Your task to perform on an android device: Play the new Katy Perry video on YouTube Image 0: 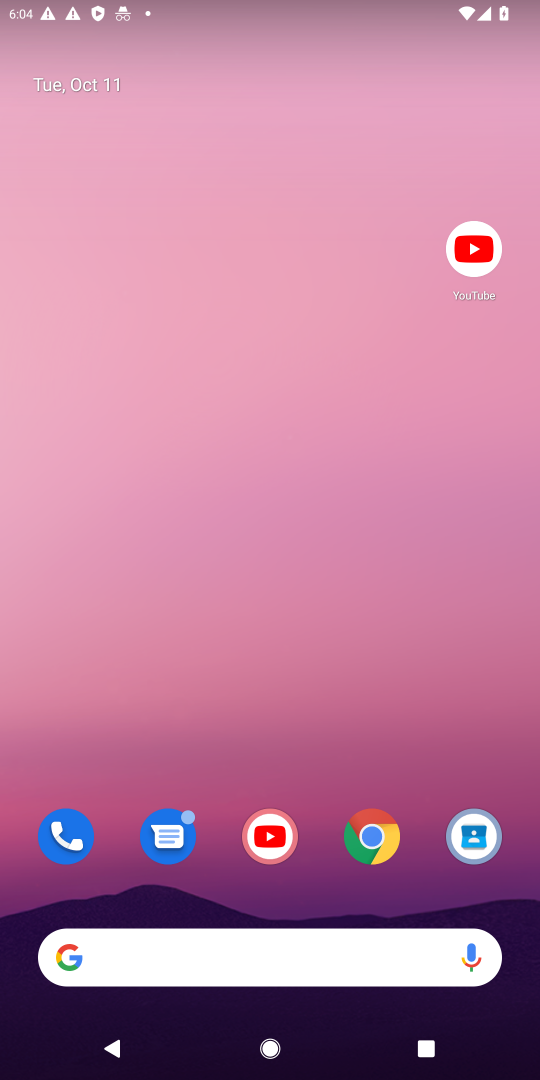
Step 0: click (263, 835)
Your task to perform on an android device: Play the new Katy Perry video on YouTube Image 1: 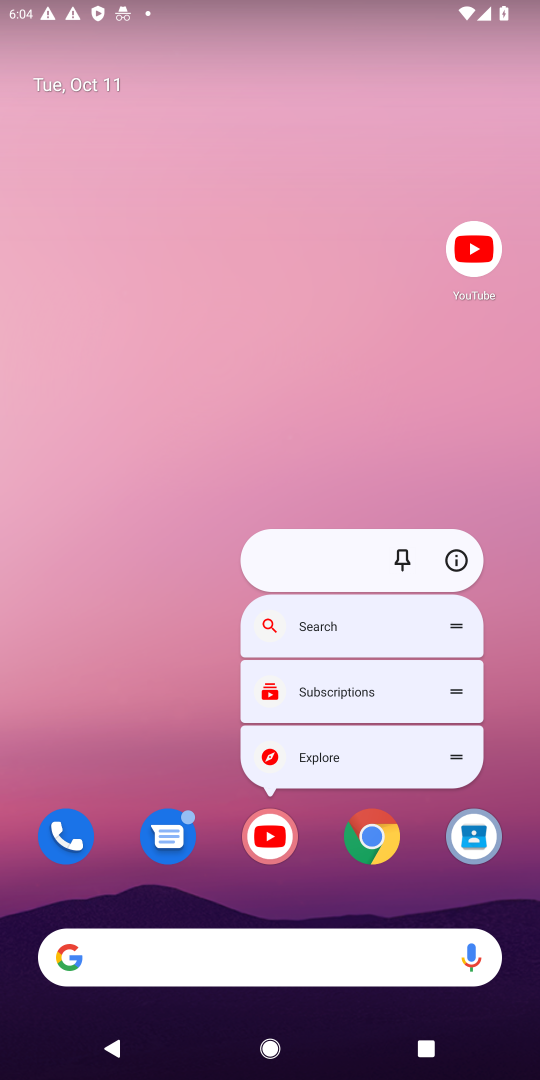
Step 1: click (263, 845)
Your task to perform on an android device: Play the new Katy Perry video on YouTube Image 2: 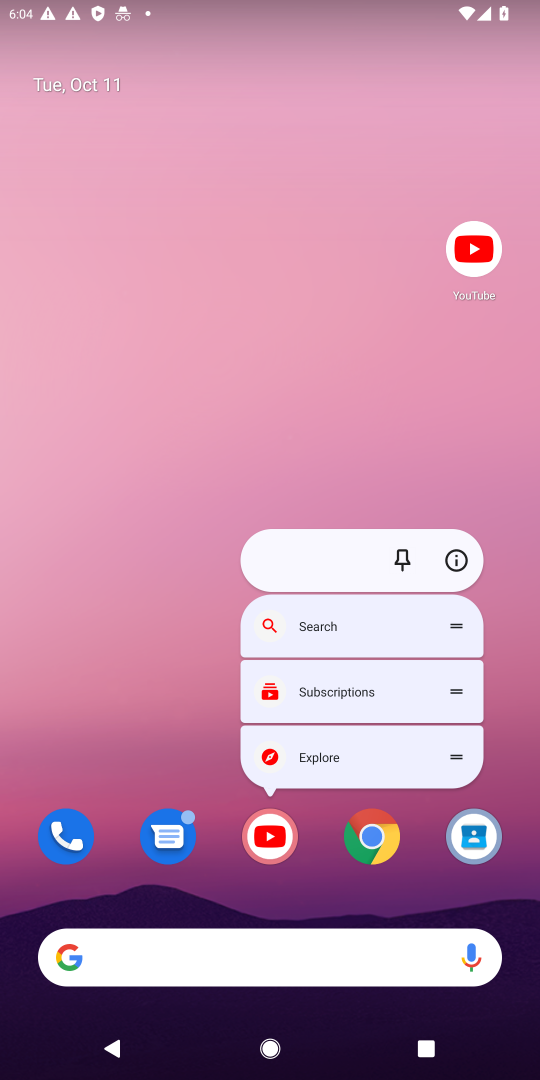
Step 2: click (265, 835)
Your task to perform on an android device: Play the new Katy Perry video on YouTube Image 3: 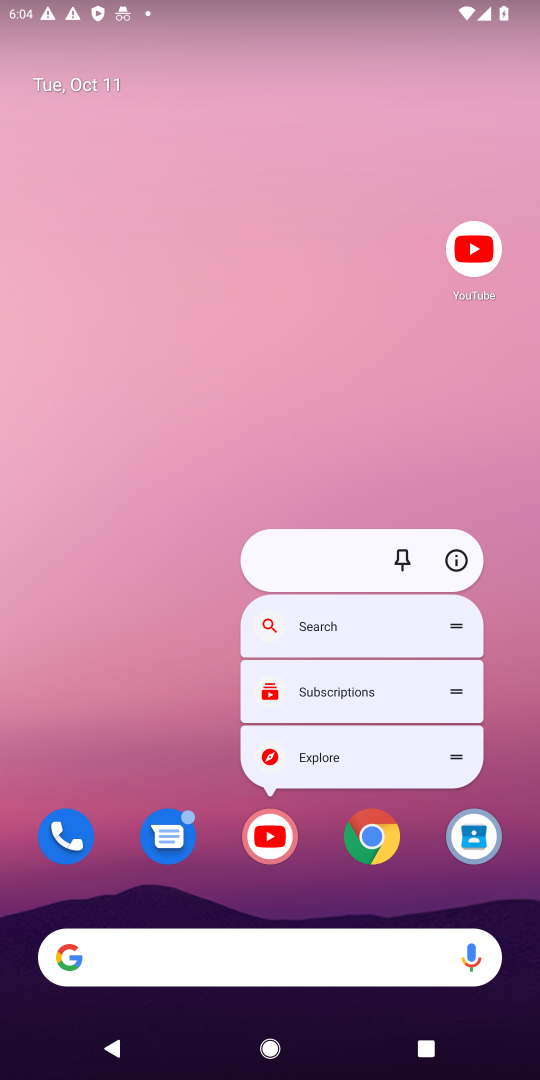
Step 3: click (265, 835)
Your task to perform on an android device: Play the new Katy Perry video on YouTube Image 4: 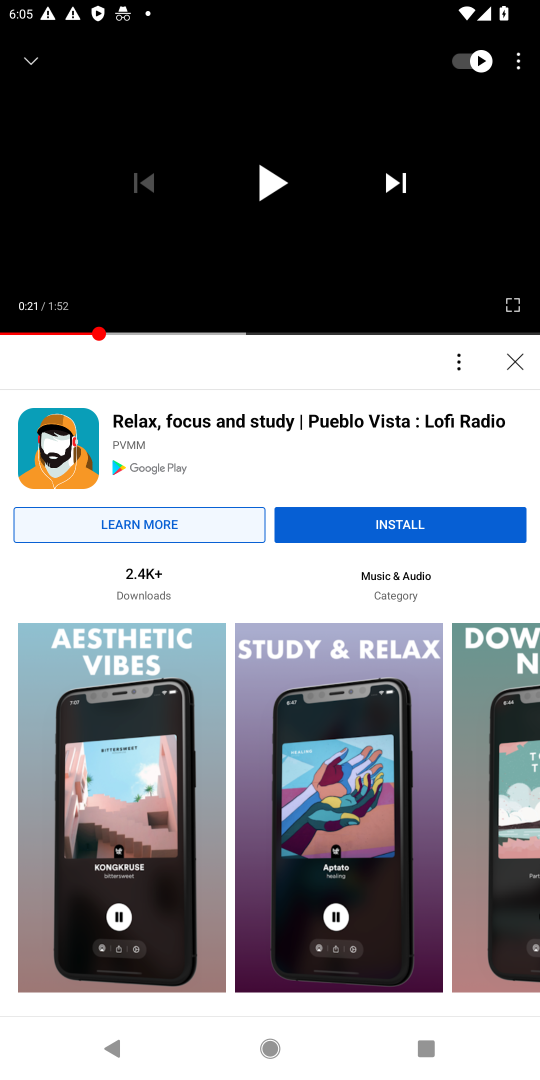
Step 4: press back button
Your task to perform on an android device: Play the new Katy Perry video on YouTube Image 5: 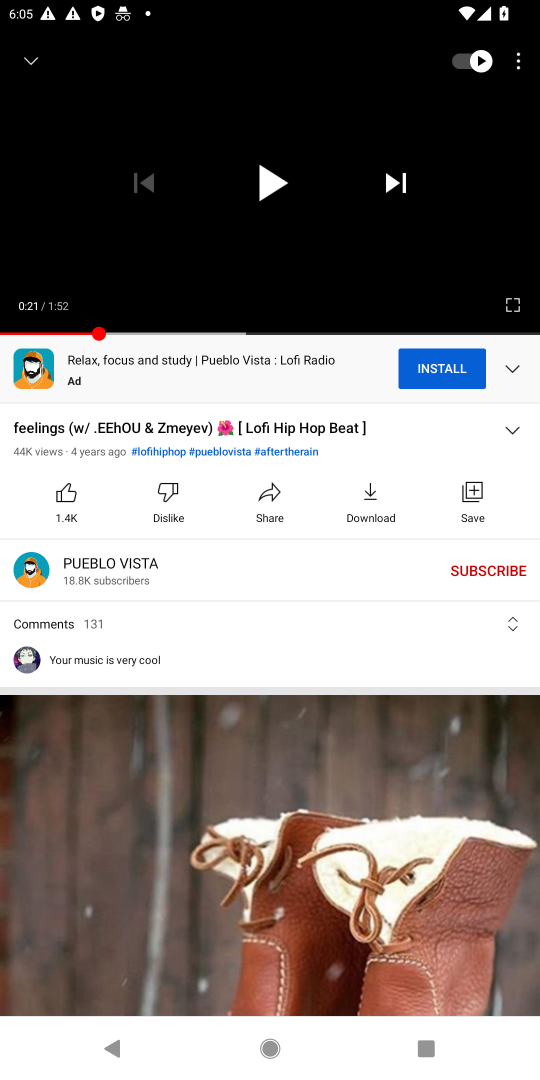
Step 5: press back button
Your task to perform on an android device: Play the new Katy Perry video on YouTube Image 6: 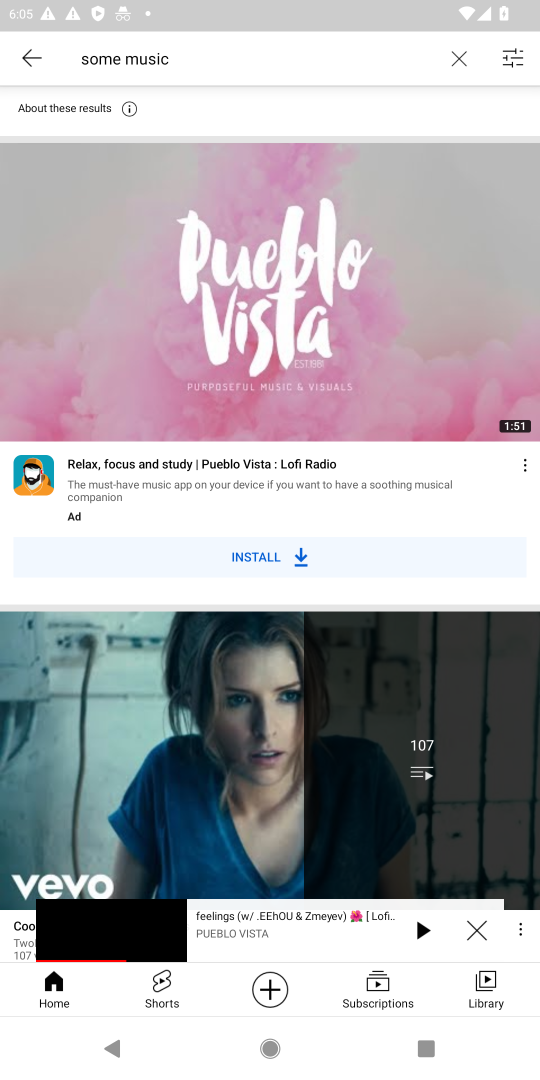
Step 6: click (458, 57)
Your task to perform on an android device: Play the new Katy Perry video on YouTube Image 7: 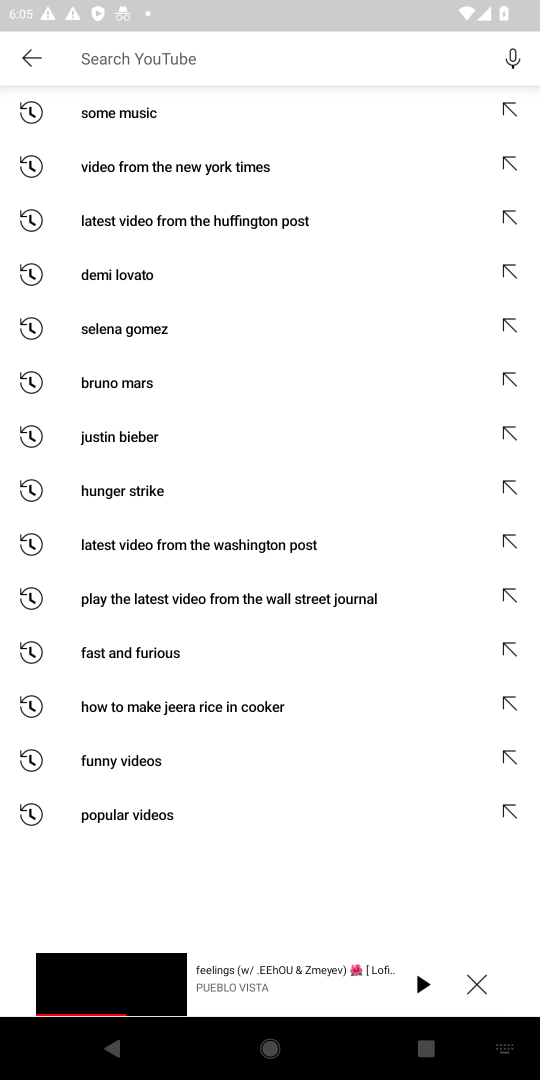
Step 7: press enter
Your task to perform on an android device: Play the new Katy Perry video on YouTube Image 8: 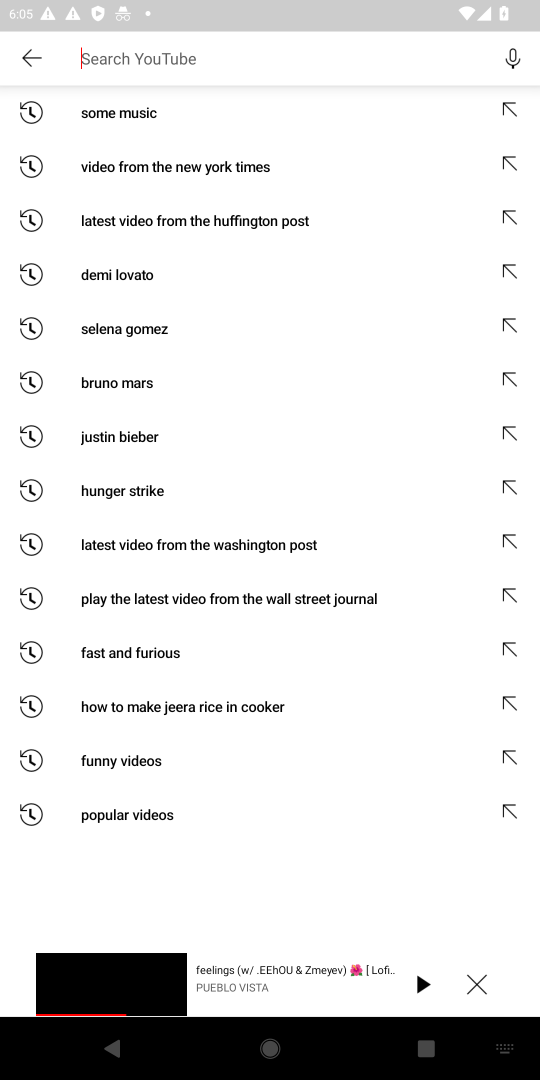
Step 8: type "new Katy Perry video "
Your task to perform on an android device: Play the new Katy Perry video on YouTube Image 9: 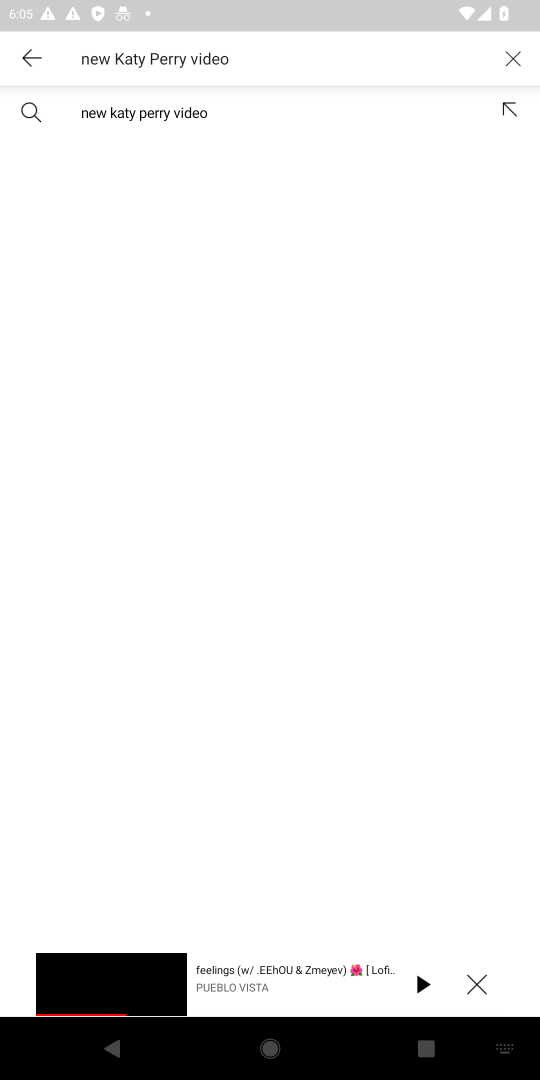
Step 9: click (478, 978)
Your task to perform on an android device: Play the new Katy Perry video on YouTube Image 10: 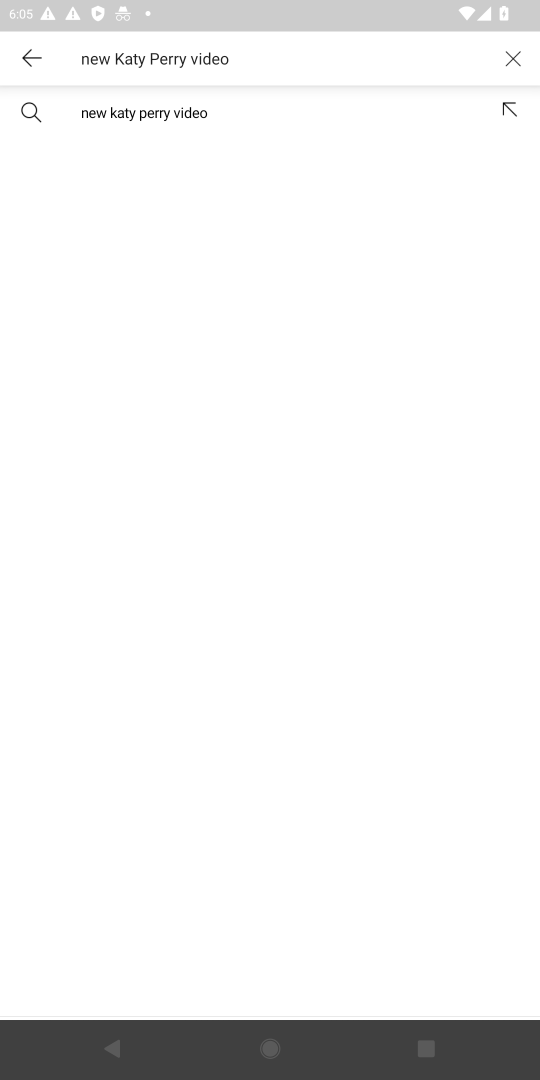
Step 10: click (168, 102)
Your task to perform on an android device: Play the new Katy Perry video on YouTube Image 11: 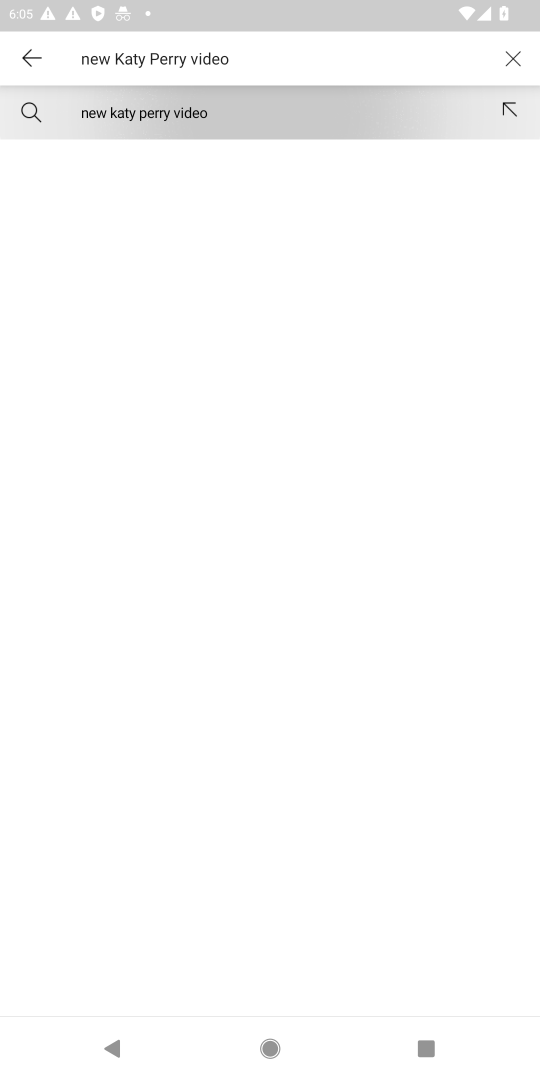
Step 11: click (167, 112)
Your task to perform on an android device: Play the new Katy Perry video on YouTube Image 12: 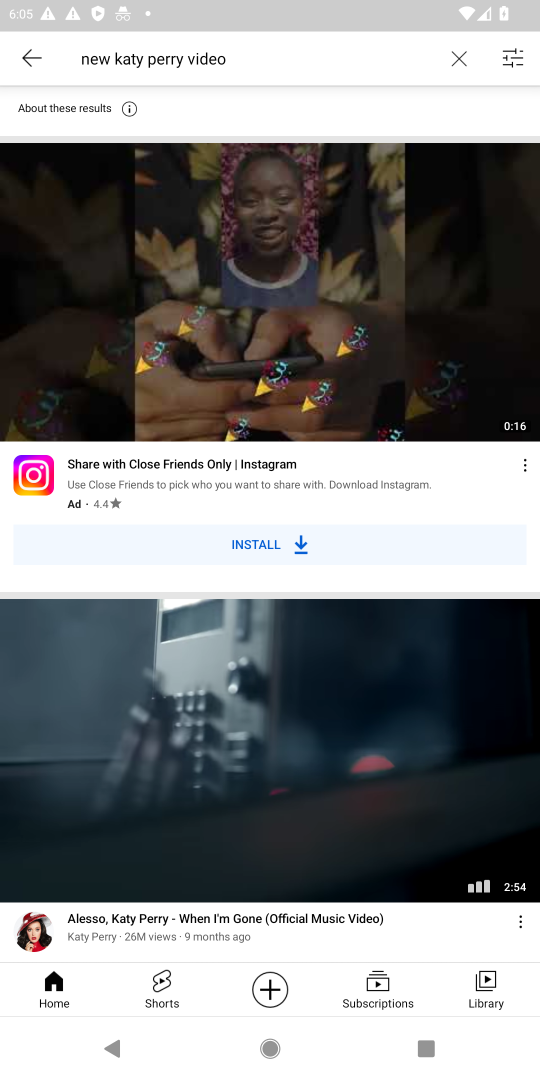
Step 12: drag from (366, 614) to (357, 338)
Your task to perform on an android device: Play the new Katy Perry video on YouTube Image 13: 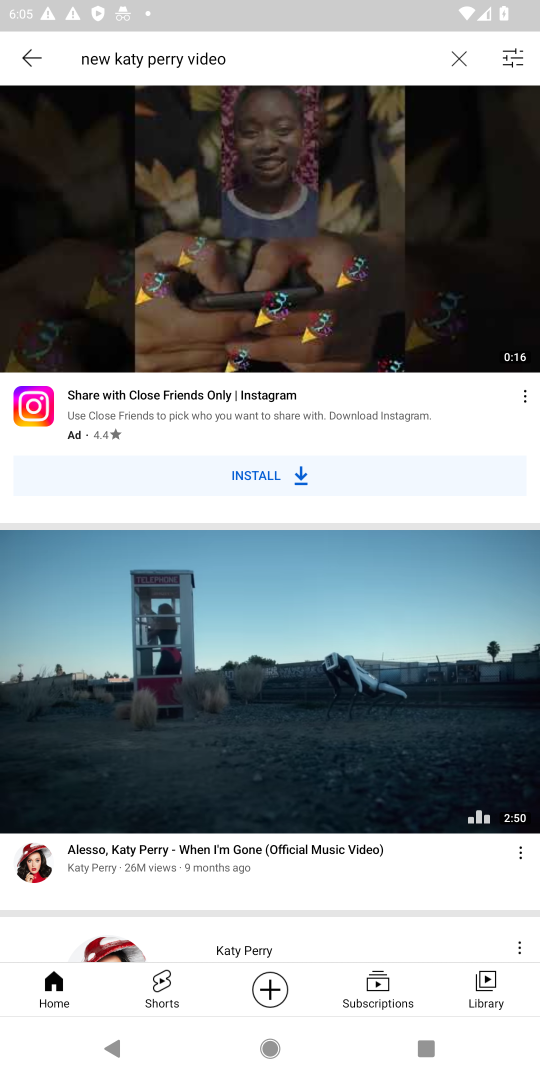
Step 13: click (280, 686)
Your task to perform on an android device: Play the new Katy Perry video on YouTube Image 14: 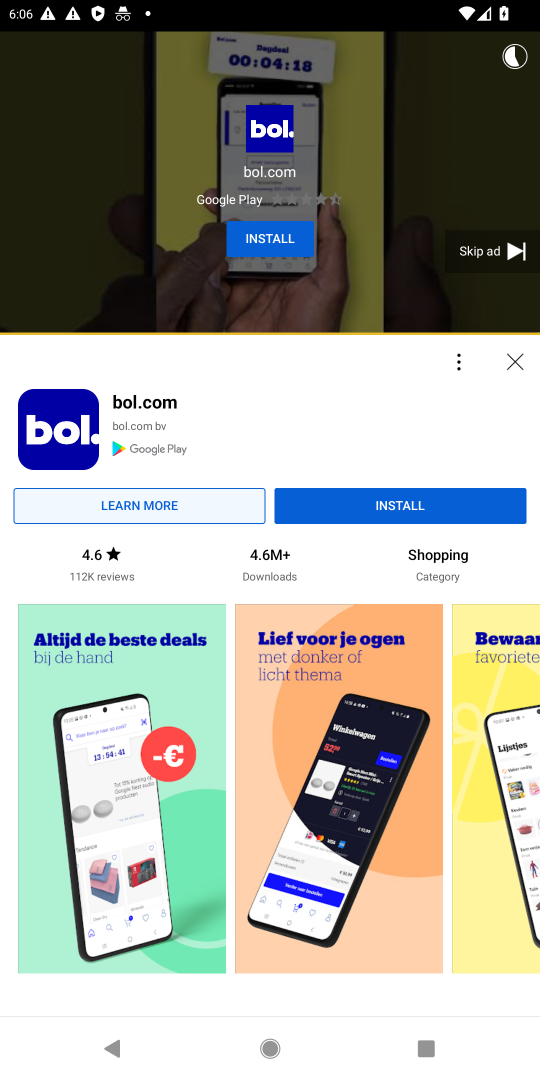
Step 14: click (470, 252)
Your task to perform on an android device: Play the new Katy Perry video on YouTube Image 15: 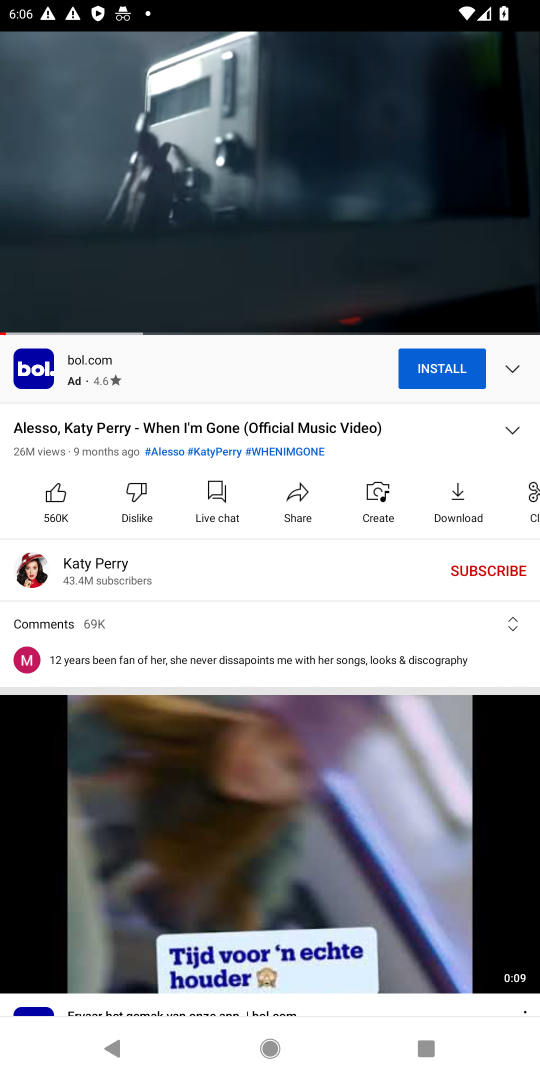
Step 15: click (240, 158)
Your task to perform on an android device: Play the new Katy Perry video on YouTube Image 16: 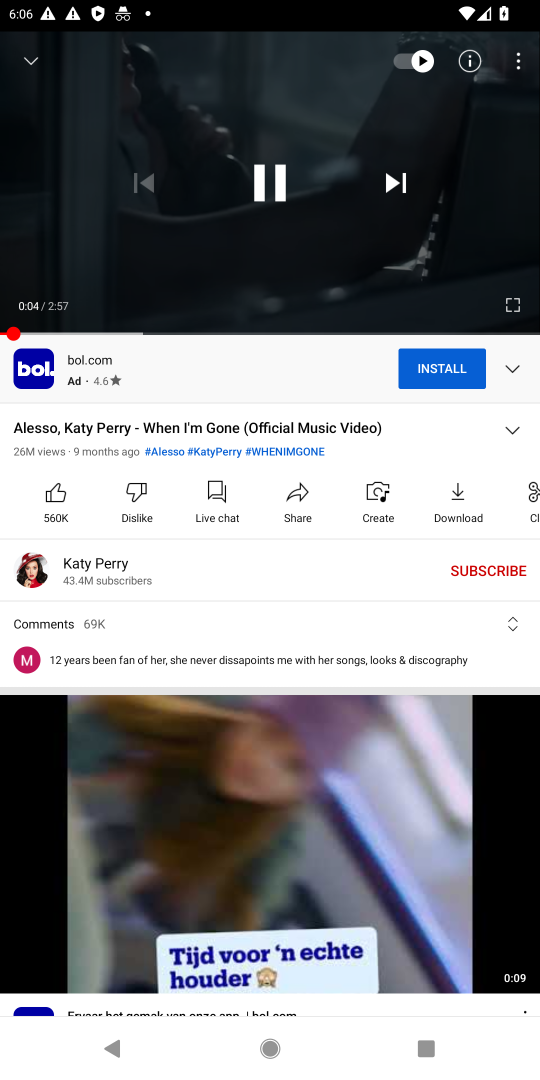
Step 16: click (260, 190)
Your task to perform on an android device: Play the new Katy Perry video on YouTube Image 17: 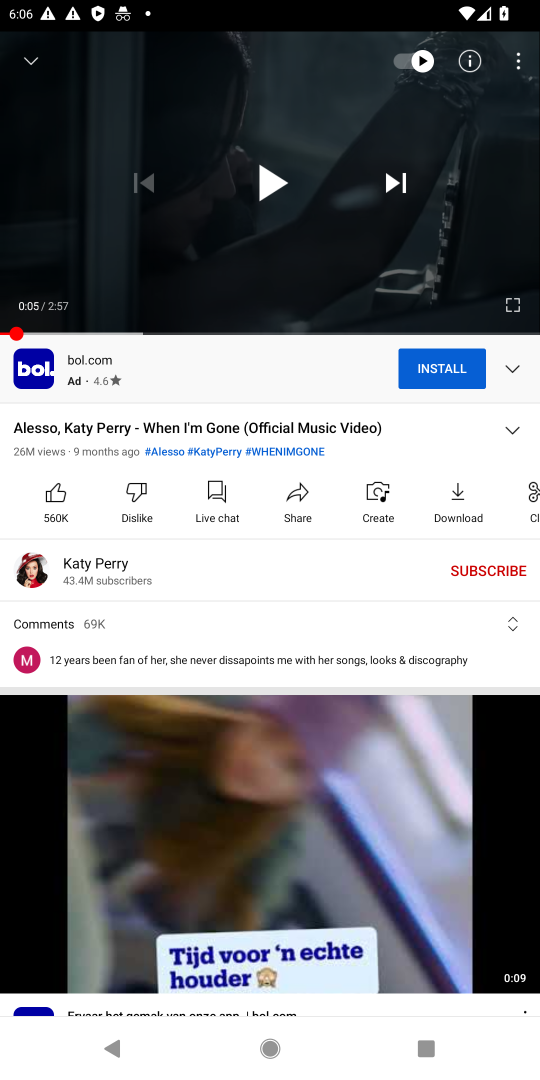
Step 17: task complete